Your task to perform on an android device: Open the stopwatch Image 0: 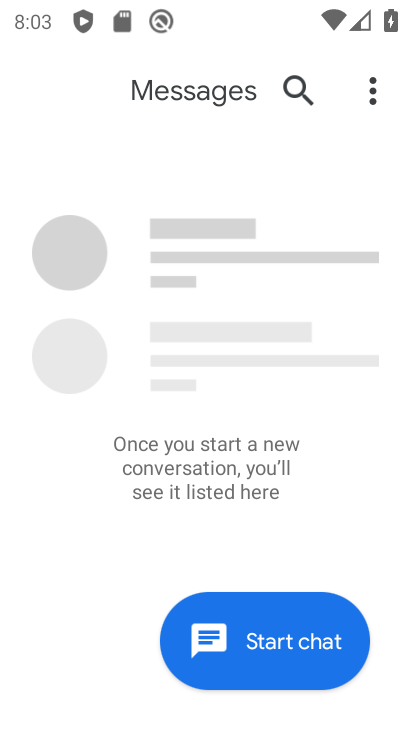
Step 0: press home button
Your task to perform on an android device: Open the stopwatch Image 1: 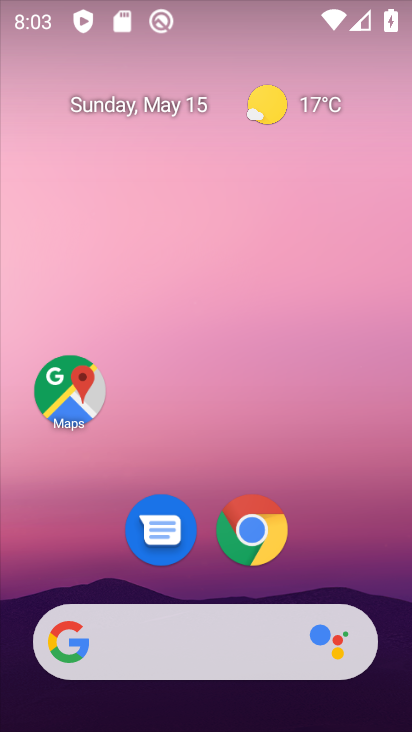
Step 1: drag from (222, 727) to (246, 218)
Your task to perform on an android device: Open the stopwatch Image 2: 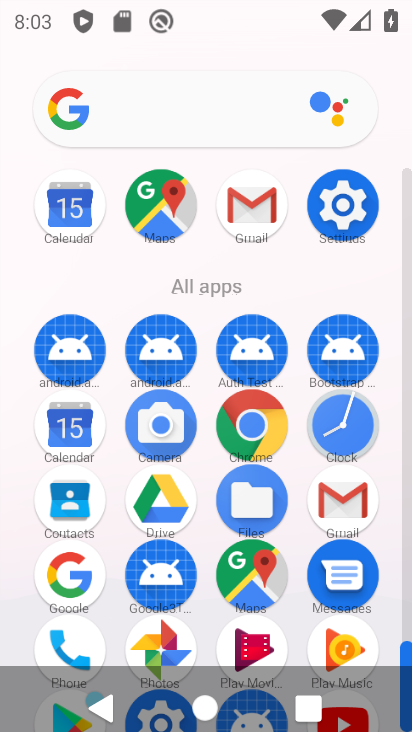
Step 2: drag from (205, 610) to (197, 283)
Your task to perform on an android device: Open the stopwatch Image 3: 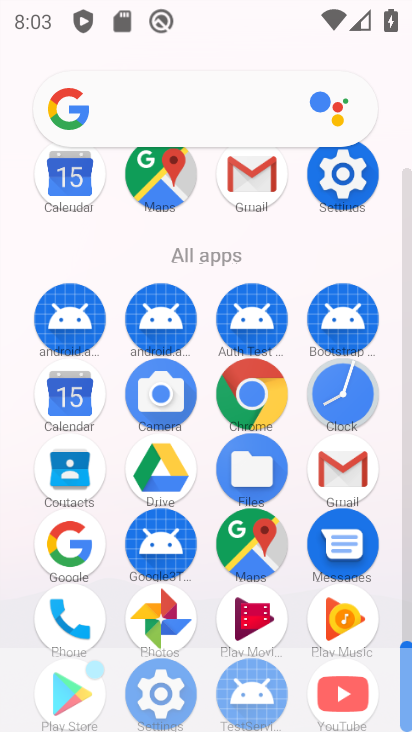
Step 3: click (352, 392)
Your task to perform on an android device: Open the stopwatch Image 4: 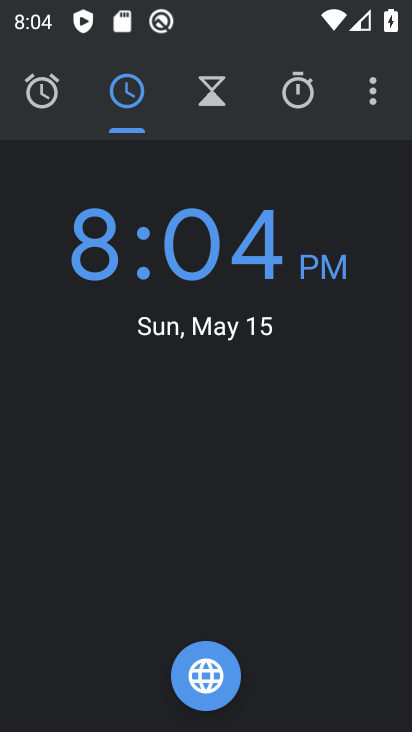
Step 4: click (303, 93)
Your task to perform on an android device: Open the stopwatch Image 5: 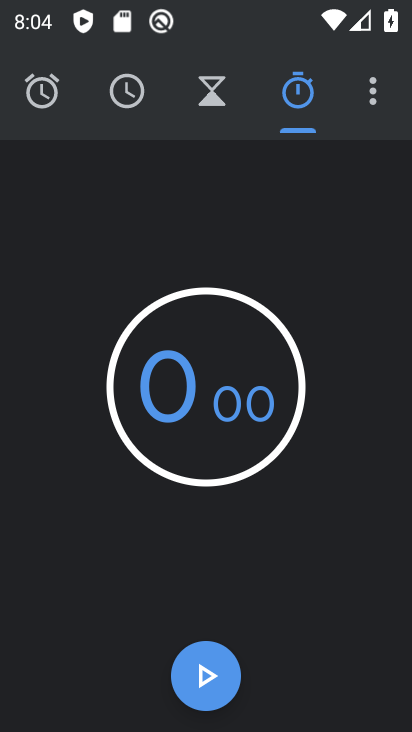
Step 5: task complete